Your task to perform on an android device: clear history in the chrome app Image 0: 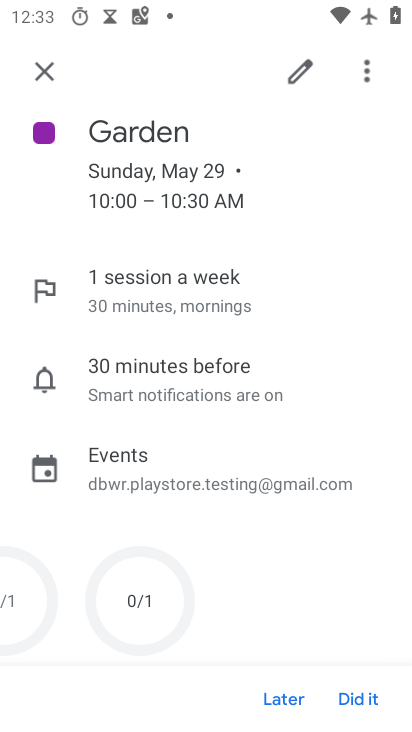
Step 0: press home button
Your task to perform on an android device: clear history in the chrome app Image 1: 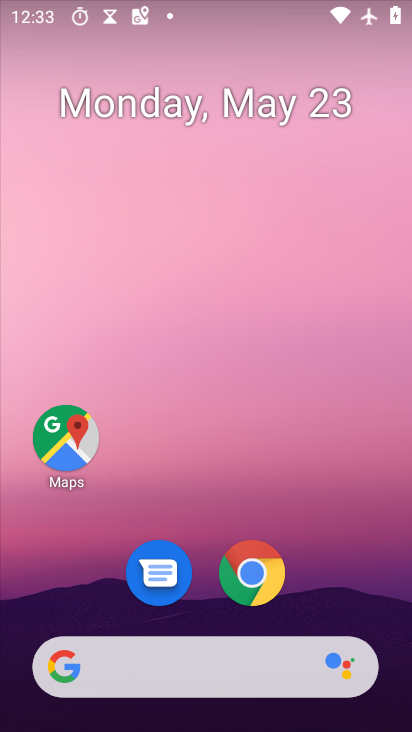
Step 1: click (237, 568)
Your task to perform on an android device: clear history in the chrome app Image 2: 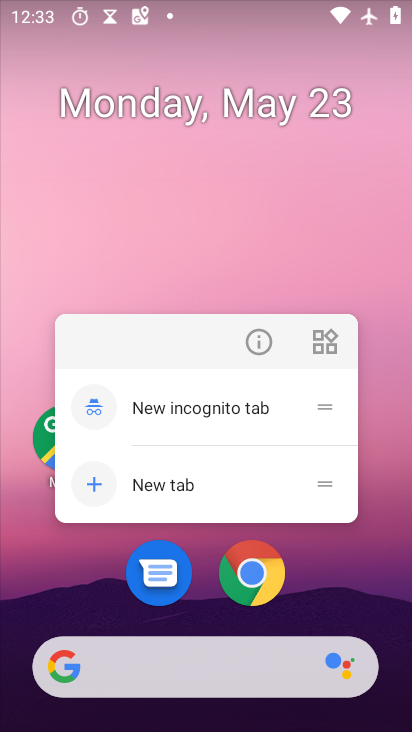
Step 2: click (262, 581)
Your task to perform on an android device: clear history in the chrome app Image 3: 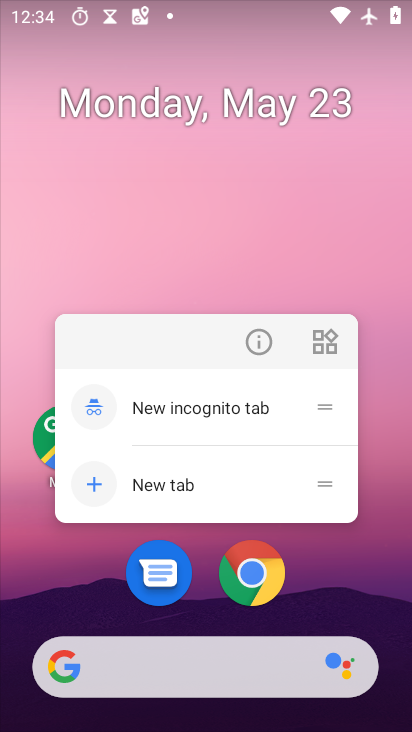
Step 3: click (258, 583)
Your task to perform on an android device: clear history in the chrome app Image 4: 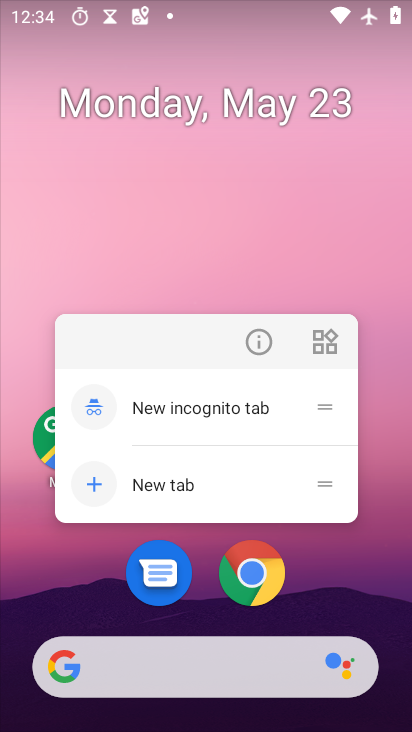
Step 4: click (249, 582)
Your task to perform on an android device: clear history in the chrome app Image 5: 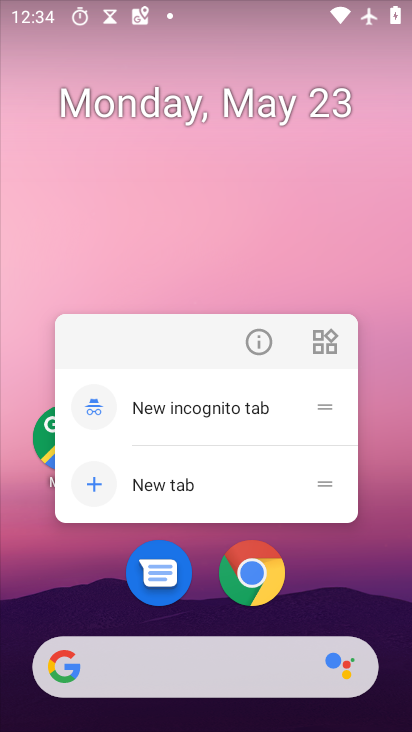
Step 5: click (242, 599)
Your task to perform on an android device: clear history in the chrome app Image 6: 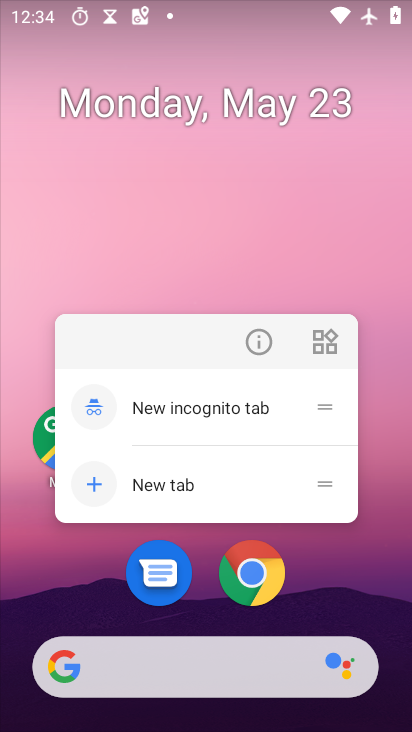
Step 6: click (249, 586)
Your task to perform on an android device: clear history in the chrome app Image 7: 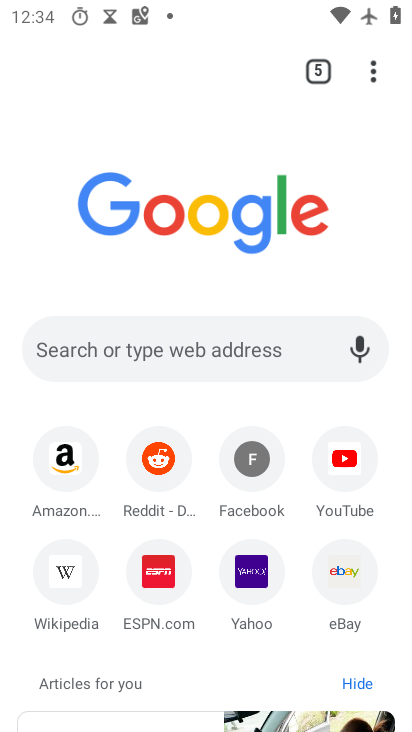
Step 7: drag from (376, 74) to (164, 403)
Your task to perform on an android device: clear history in the chrome app Image 8: 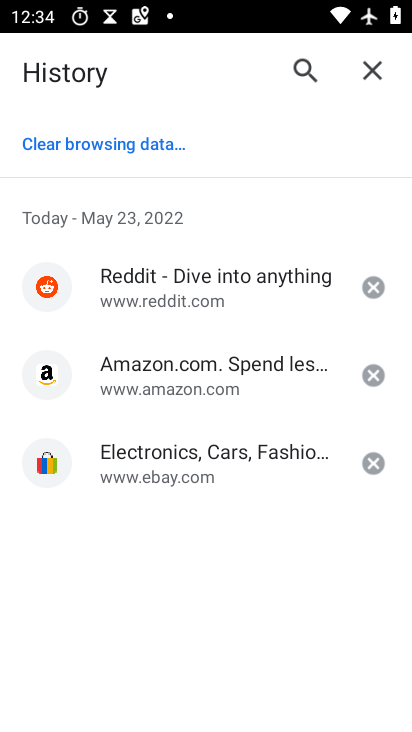
Step 8: click (129, 139)
Your task to perform on an android device: clear history in the chrome app Image 9: 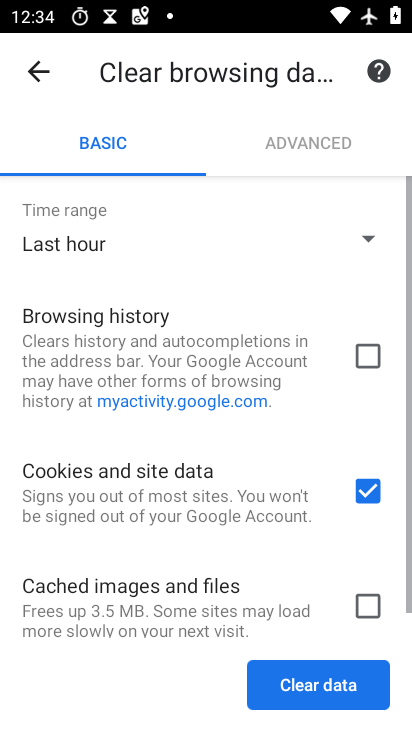
Step 9: click (365, 355)
Your task to perform on an android device: clear history in the chrome app Image 10: 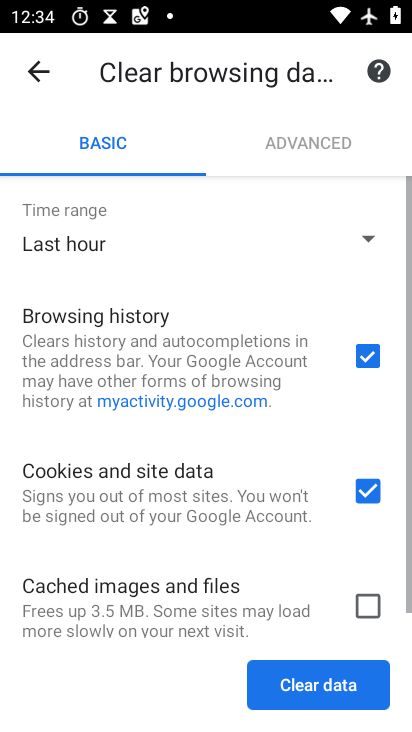
Step 10: click (366, 603)
Your task to perform on an android device: clear history in the chrome app Image 11: 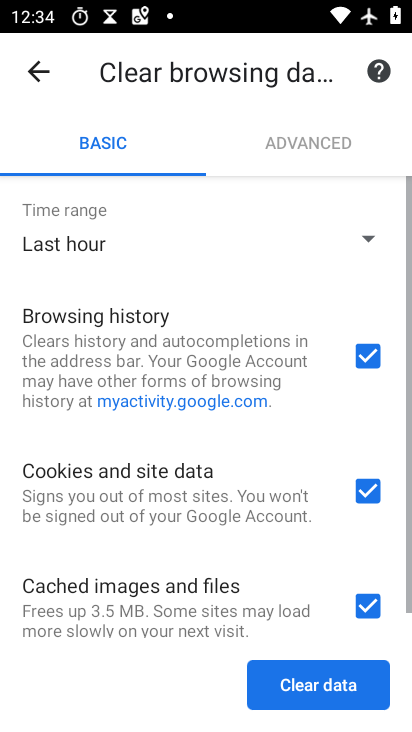
Step 11: click (320, 685)
Your task to perform on an android device: clear history in the chrome app Image 12: 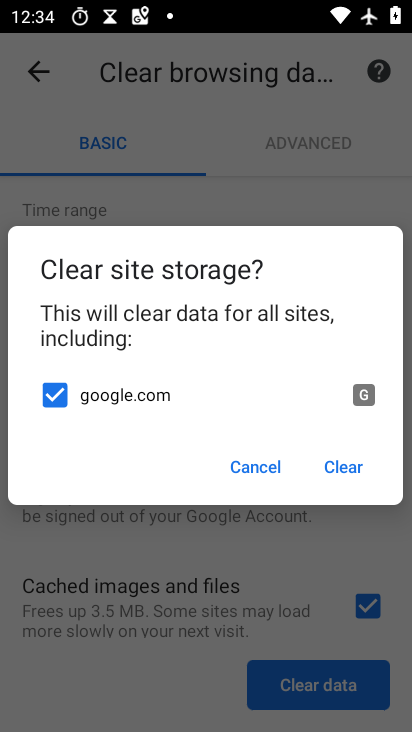
Step 12: click (345, 471)
Your task to perform on an android device: clear history in the chrome app Image 13: 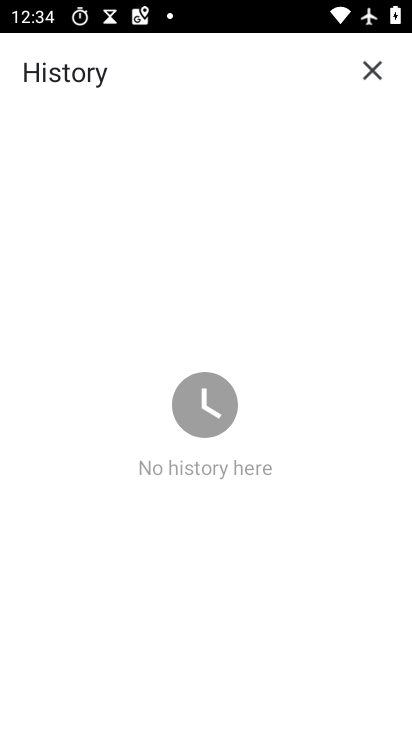
Step 13: task complete